Your task to perform on an android device: clear history in the chrome app Image 0: 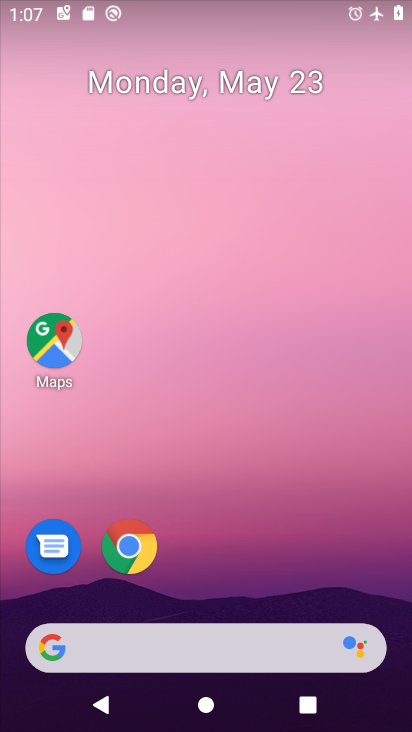
Step 0: drag from (246, 634) to (215, 29)
Your task to perform on an android device: clear history in the chrome app Image 1: 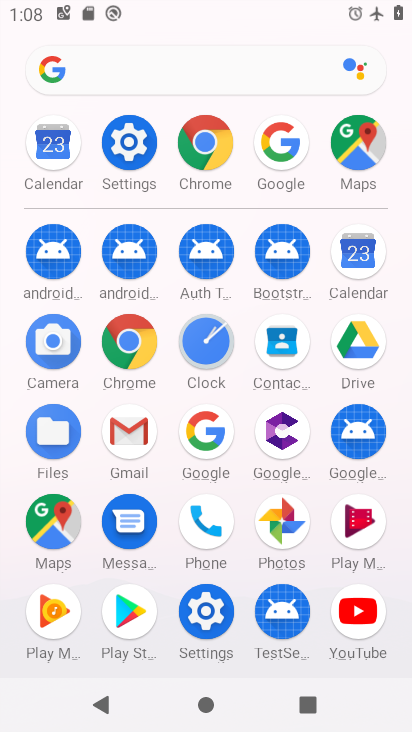
Step 1: click (203, 161)
Your task to perform on an android device: clear history in the chrome app Image 2: 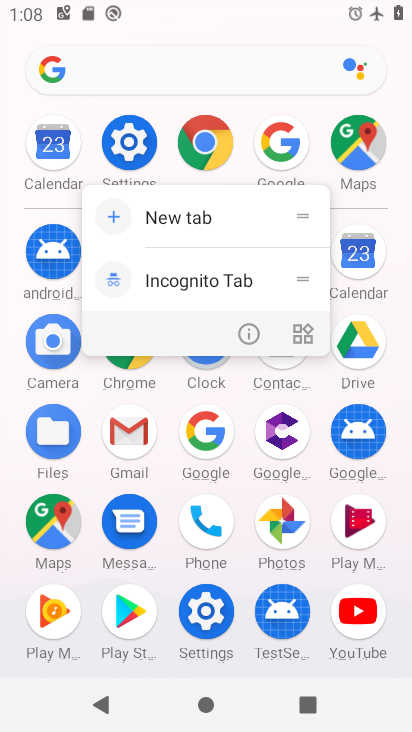
Step 2: click (205, 150)
Your task to perform on an android device: clear history in the chrome app Image 3: 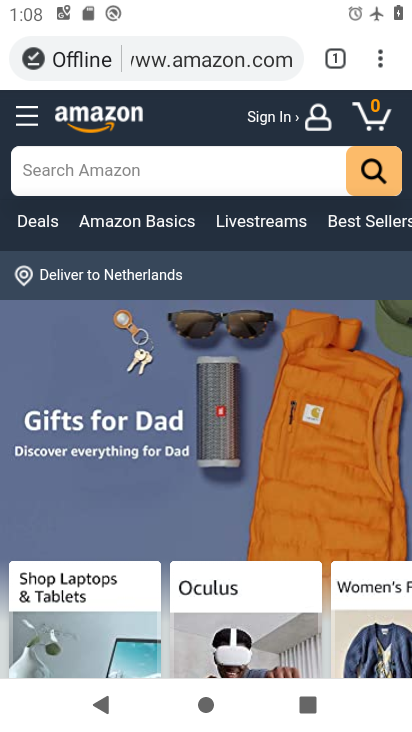
Step 3: click (370, 58)
Your task to perform on an android device: clear history in the chrome app Image 4: 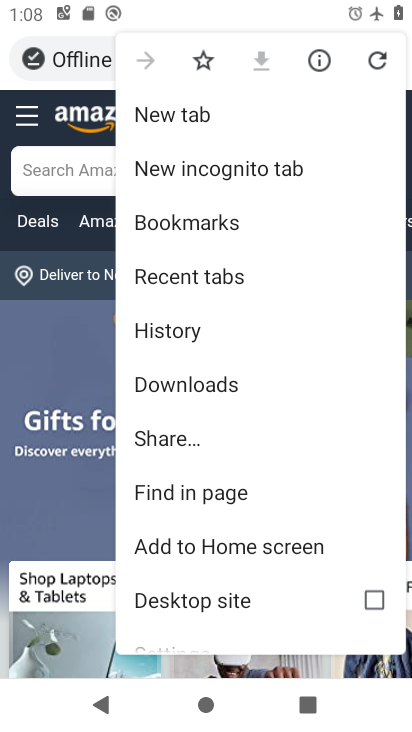
Step 4: click (172, 331)
Your task to perform on an android device: clear history in the chrome app Image 5: 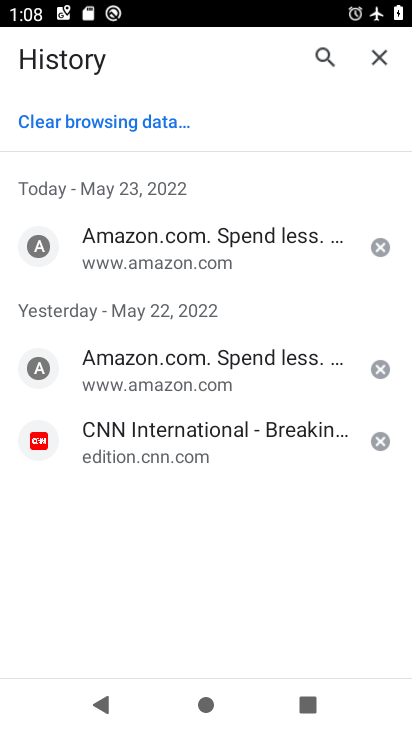
Step 5: click (138, 129)
Your task to perform on an android device: clear history in the chrome app Image 6: 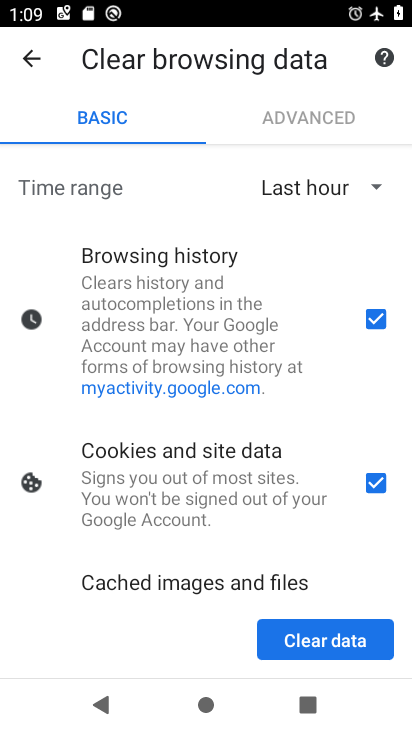
Step 6: click (380, 487)
Your task to perform on an android device: clear history in the chrome app Image 7: 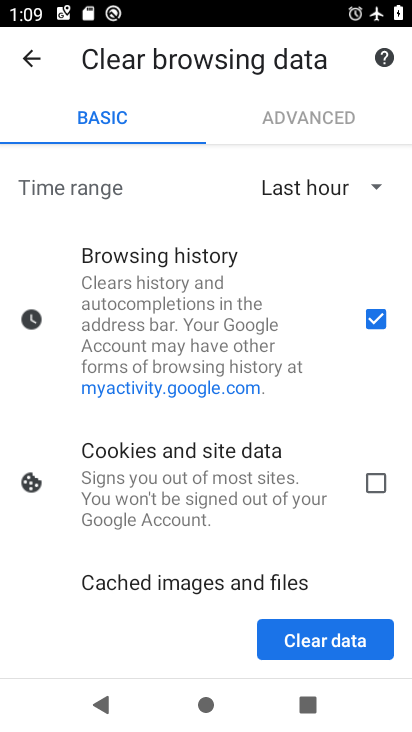
Step 7: click (345, 644)
Your task to perform on an android device: clear history in the chrome app Image 8: 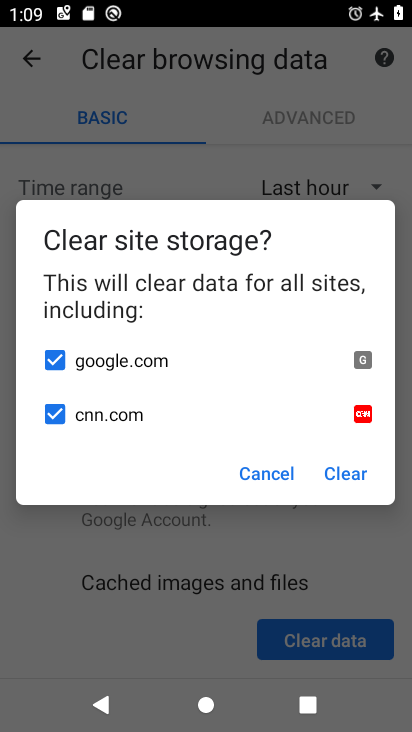
Step 8: click (356, 482)
Your task to perform on an android device: clear history in the chrome app Image 9: 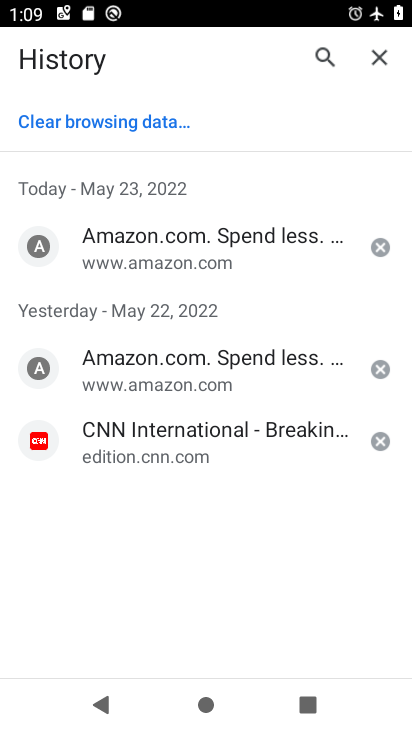
Step 9: task complete